Your task to perform on an android device: open app "Life360: Find Family & Friends" (install if not already installed) and go to login screen Image 0: 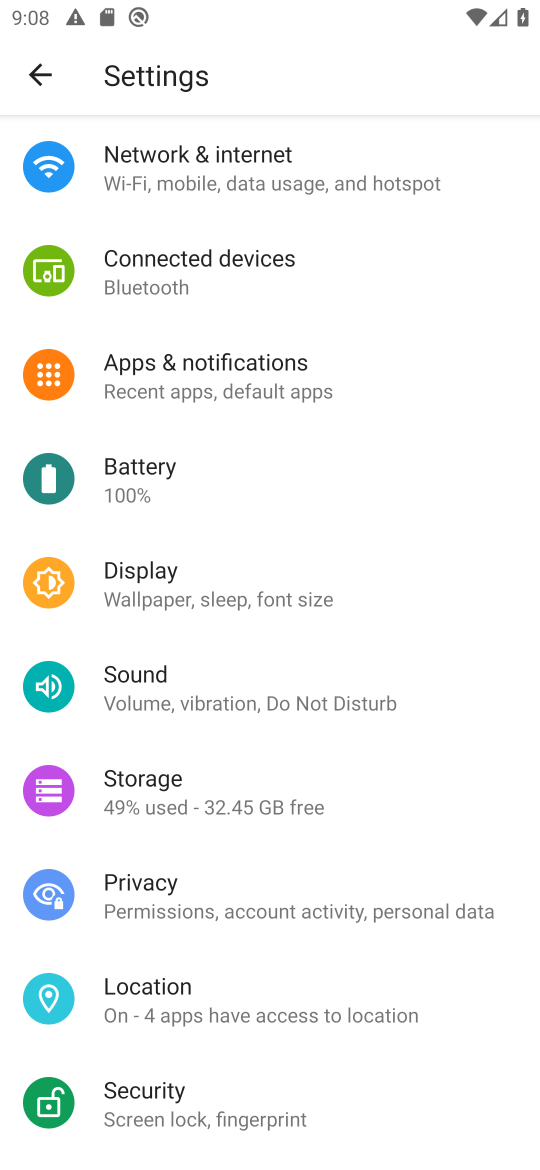
Step 0: press home button
Your task to perform on an android device: open app "Life360: Find Family & Friends" (install if not already installed) and go to login screen Image 1: 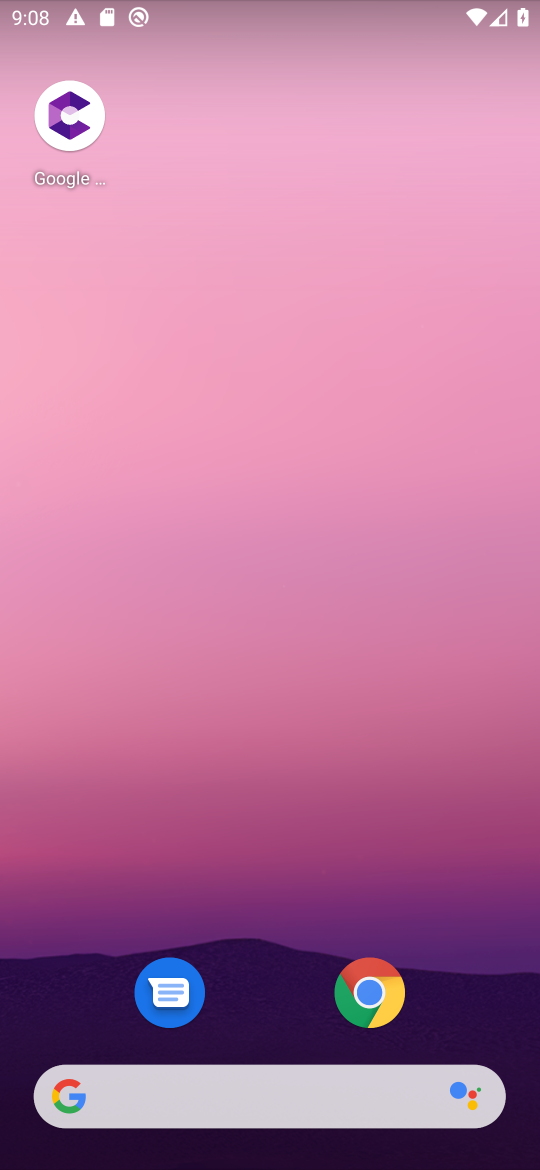
Step 1: drag from (214, 1114) to (294, 103)
Your task to perform on an android device: open app "Life360: Find Family & Friends" (install if not already installed) and go to login screen Image 2: 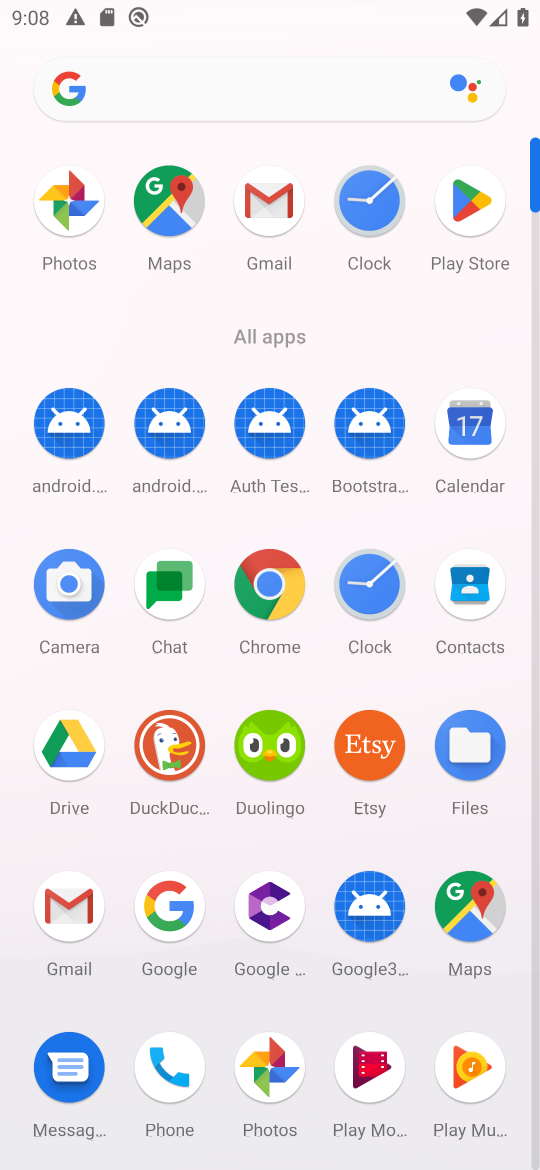
Step 2: click (472, 206)
Your task to perform on an android device: open app "Life360: Find Family & Friends" (install if not already installed) and go to login screen Image 3: 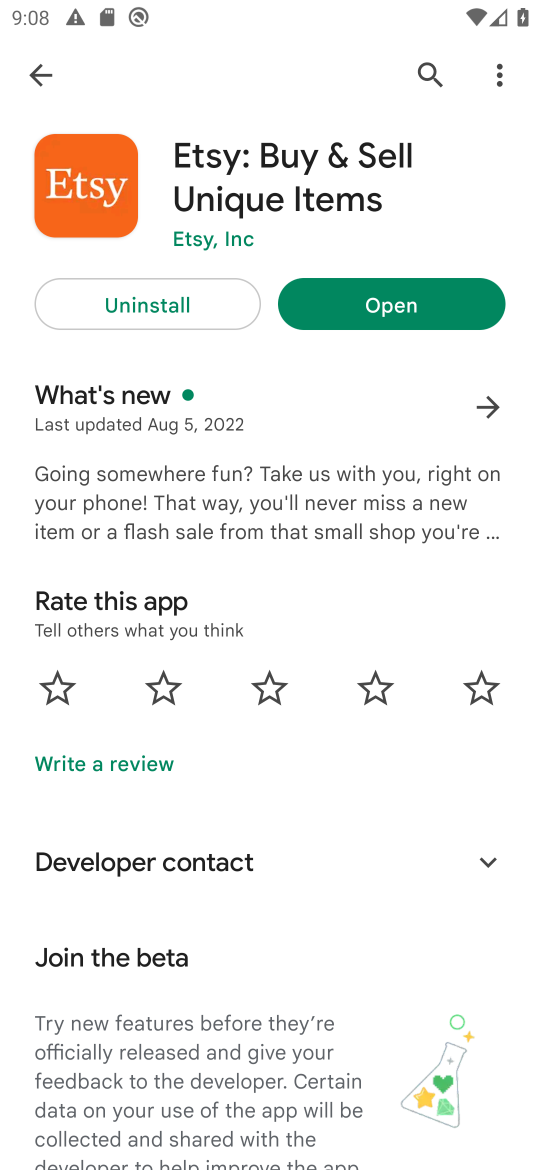
Step 3: press back button
Your task to perform on an android device: open app "Life360: Find Family & Friends" (install if not already installed) and go to login screen Image 4: 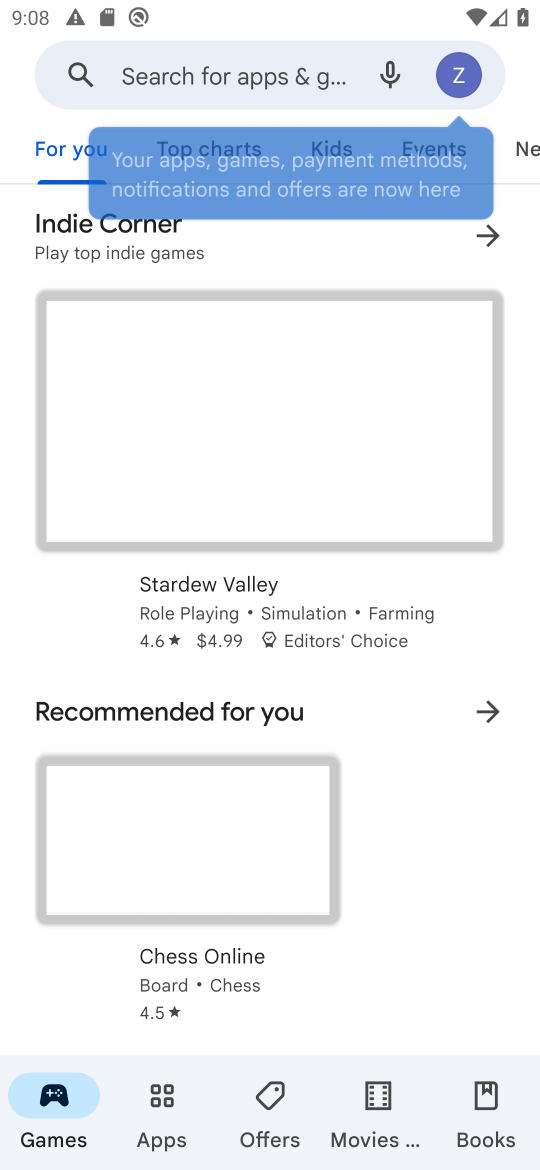
Step 4: click (269, 82)
Your task to perform on an android device: open app "Life360: Find Family & Friends" (install if not already installed) and go to login screen Image 5: 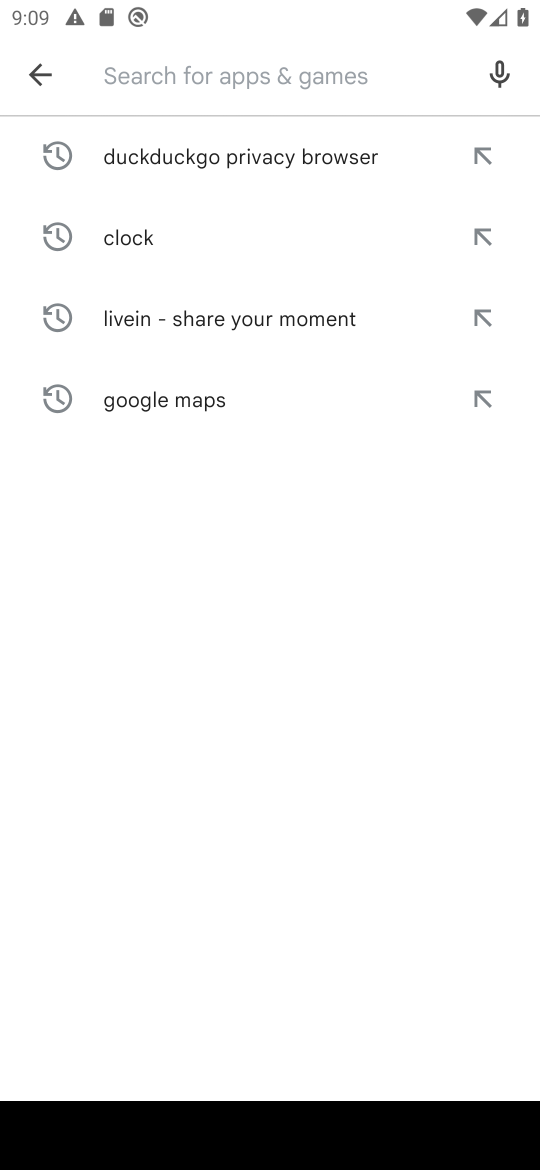
Step 5: type "Life360: Find Family & Friends"
Your task to perform on an android device: open app "Life360: Find Family & Friends" (install if not already installed) and go to login screen Image 6: 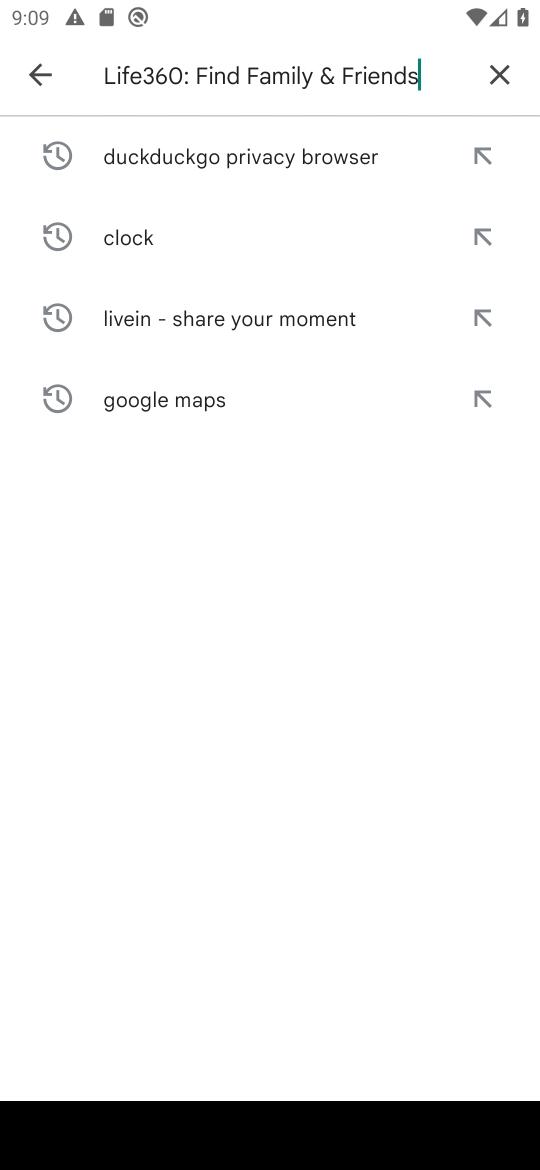
Step 6: type ""
Your task to perform on an android device: open app "Life360: Find Family & Friends" (install if not already installed) and go to login screen Image 7: 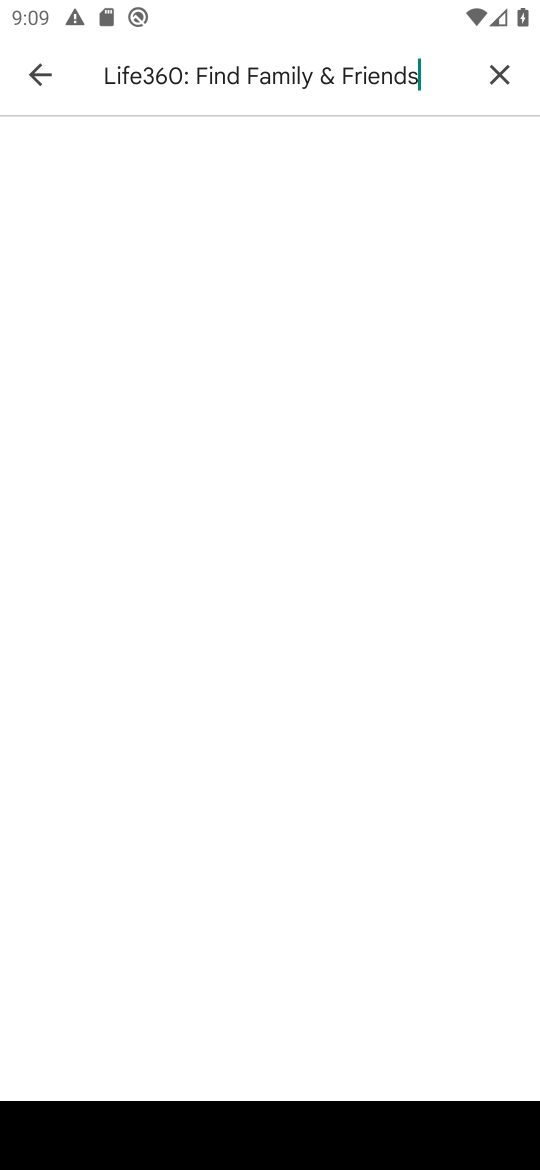
Step 7: press back button
Your task to perform on an android device: open app "Life360: Find Family & Friends" (install if not already installed) and go to login screen Image 8: 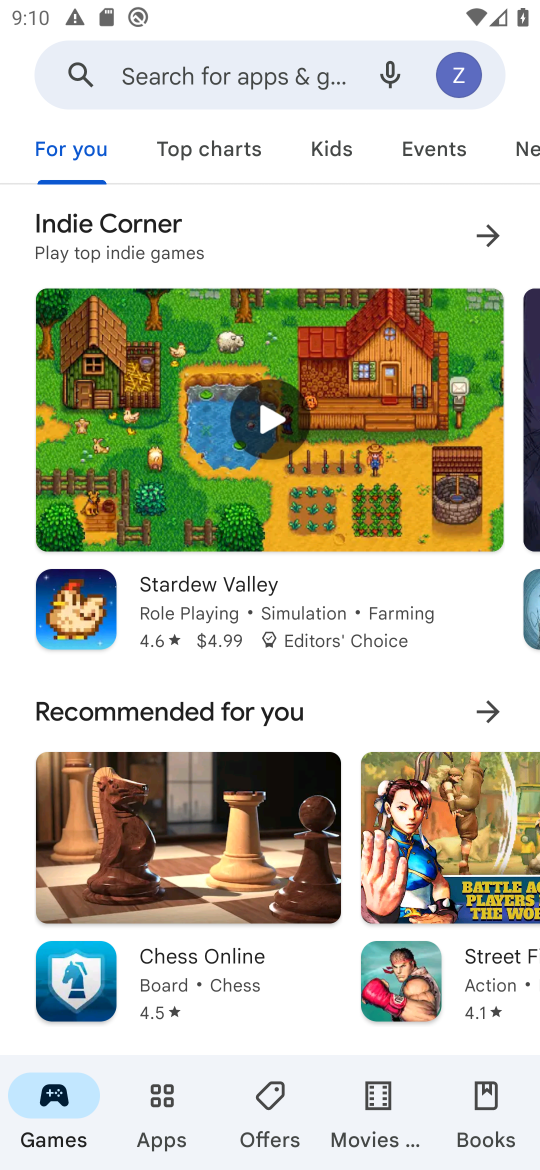
Step 8: click (161, 1101)
Your task to perform on an android device: open app "Life360: Find Family & Friends" (install if not already installed) and go to login screen Image 9: 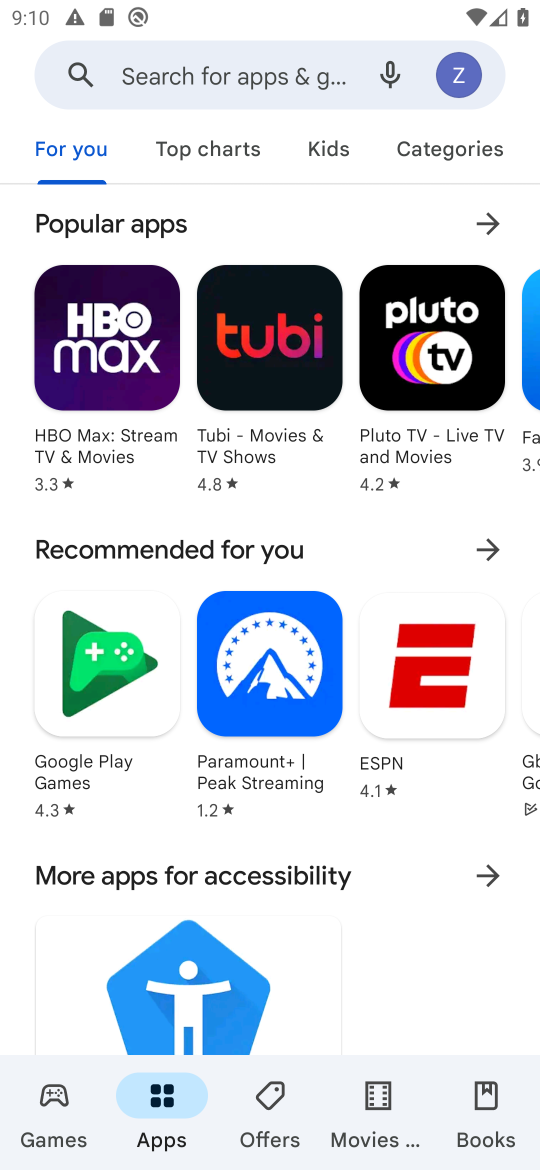
Step 9: click (150, 86)
Your task to perform on an android device: open app "Life360: Find Family & Friends" (install if not already installed) and go to login screen Image 10: 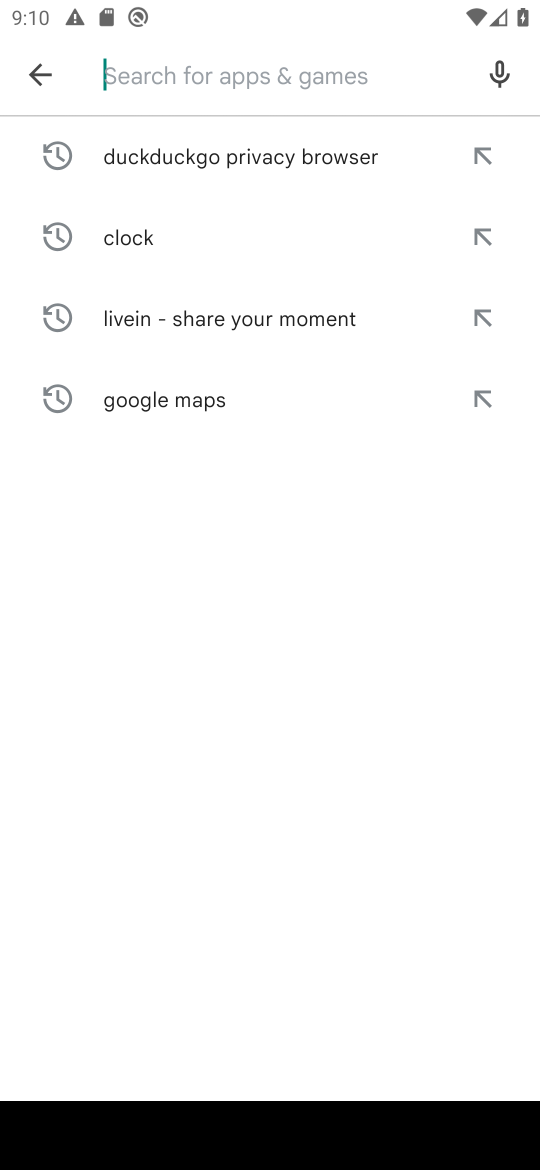
Step 10: type "Life360: Find Family & Friends"
Your task to perform on an android device: open app "Life360: Find Family & Friends" (install if not already installed) and go to login screen Image 11: 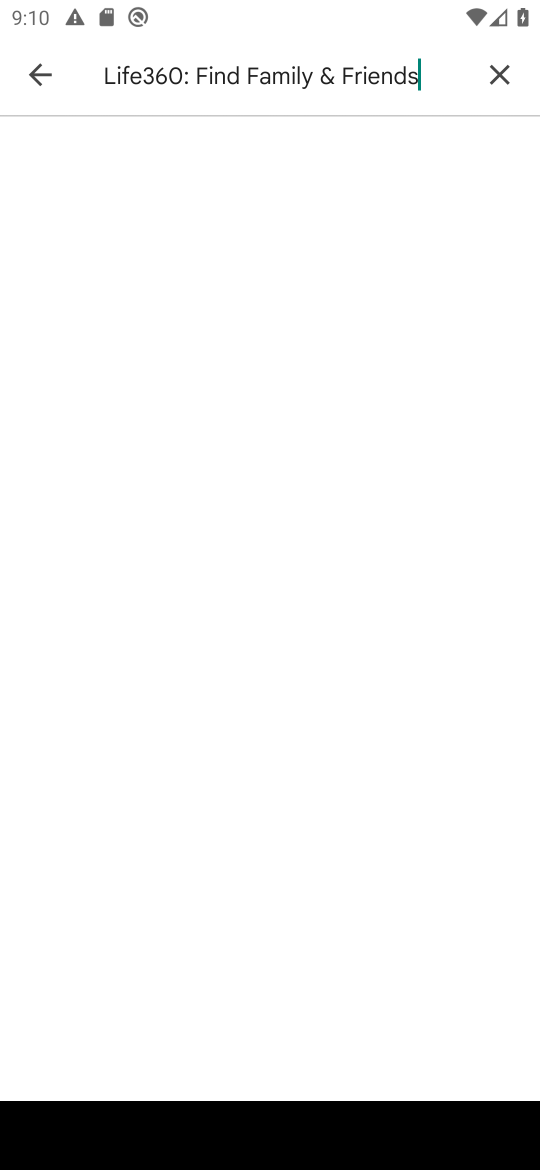
Step 11: type ""
Your task to perform on an android device: open app "Life360: Find Family & Friends" (install if not already installed) and go to login screen Image 12: 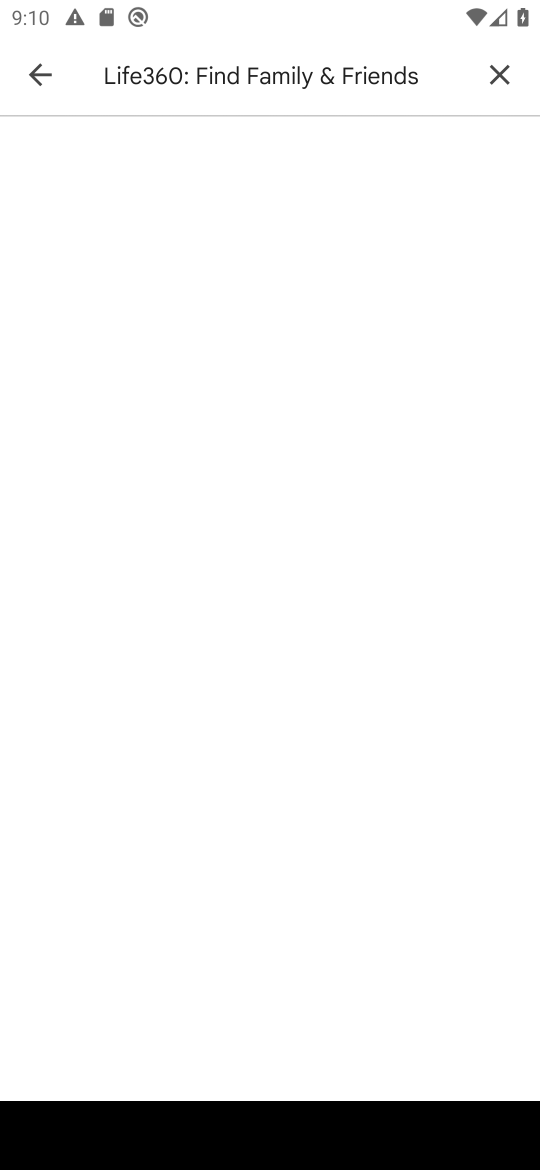
Step 12: task complete